Your task to perform on an android device: Search for pizza restaurants on Maps Image 0: 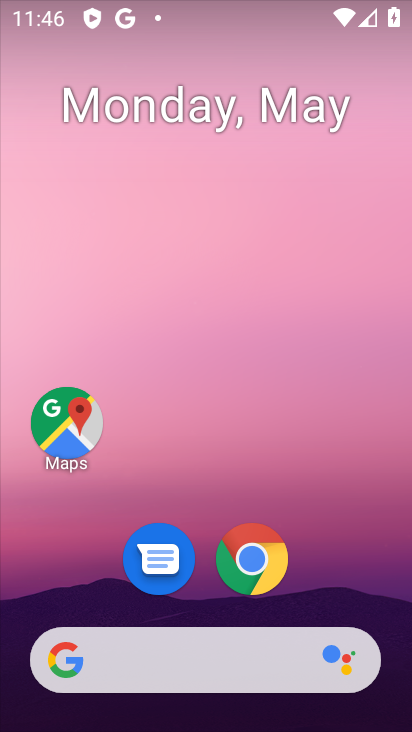
Step 0: drag from (372, 547) to (342, 73)
Your task to perform on an android device: Search for pizza restaurants on Maps Image 1: 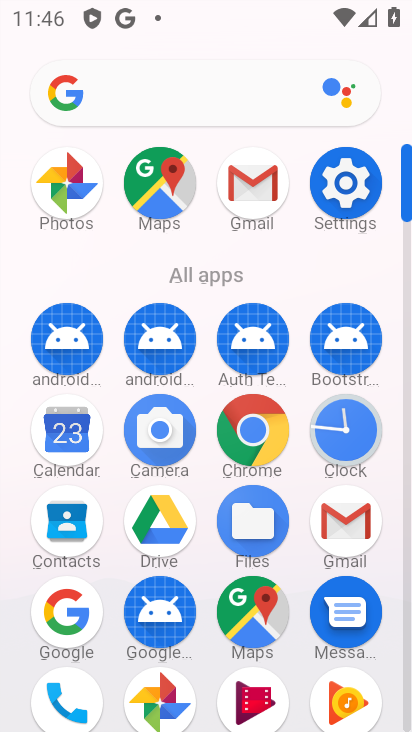
Step 1: click (155, 222)
Your task to perform on an android device: Search for pizza restaurants on Maps Image 2: 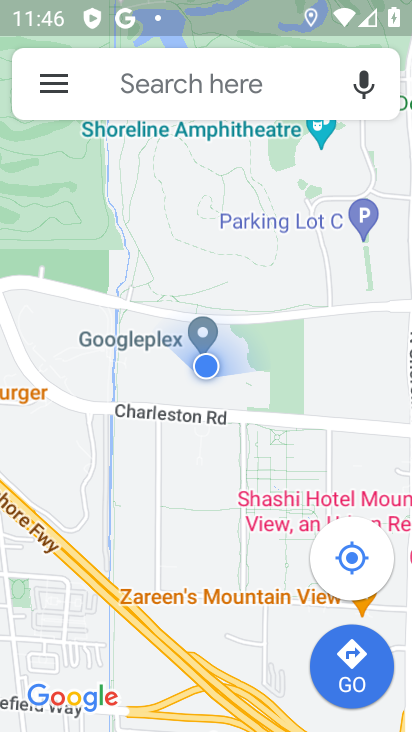
Step 2: click (256, 98)
Your task to perform on an android device: Search for pizza restaurants on Maps Image 3: 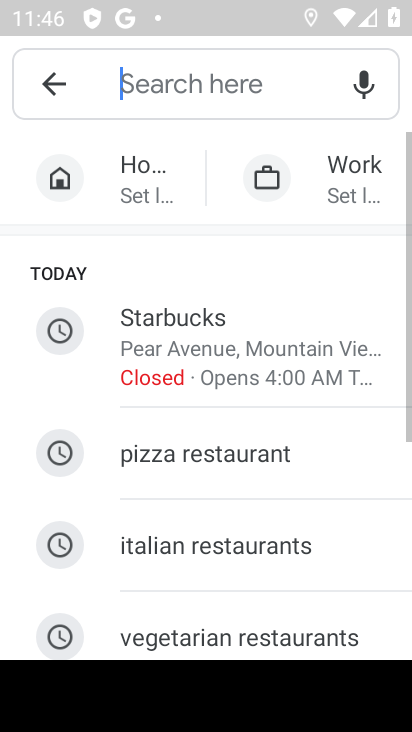
Step 3: click (208, 455)
Your task to perform on an android device: Search for pizza restaurants on Maps Image 4: 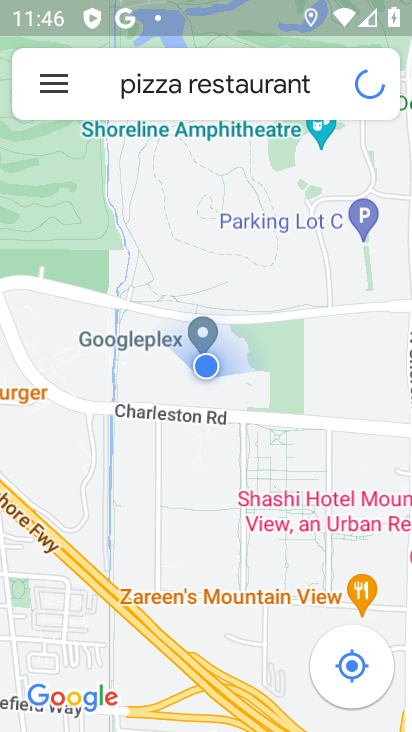
Step 4: task complete